Your task to perform on an android device: turn on priority inbox in the gmail app Image 0: 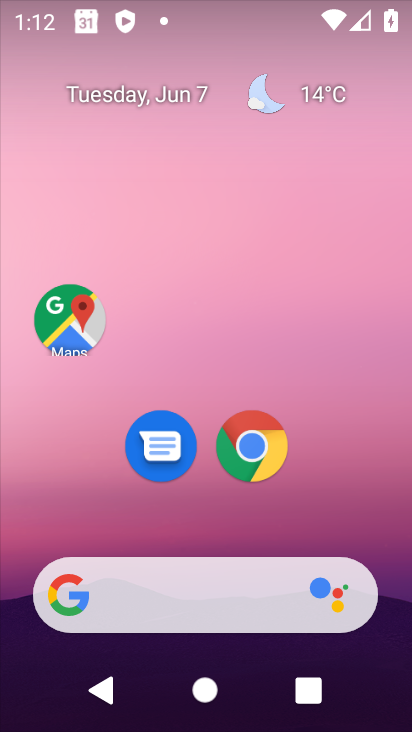
Step 0: drag from (261, 665) to (273, 45)
Your task to perform on an android device: turn on priority inbox in the gmail app Image 1: 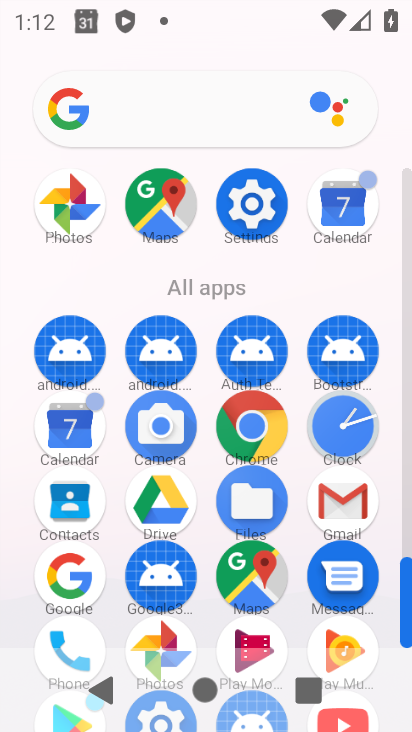
Step 1: click (358, 504)
Your task to perform on an android device: turn on priority inbox in the gmail app Image 2: 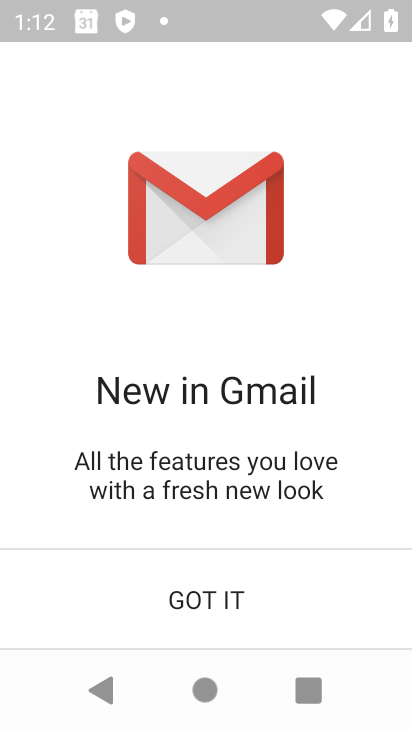
Step 2: click (219, 583)
Your task to perform on an android device: turn on priority inbox in the gmail app Image 3: 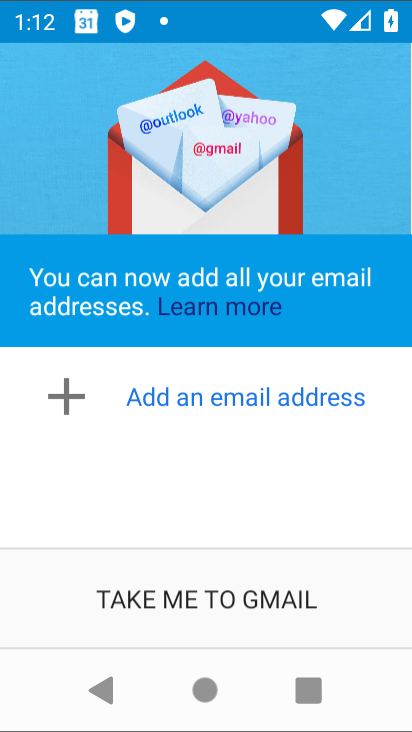
Step 3: click (219, 583)
Your task to perform on an android device: turn on priority inbox in the gmail app Image 4: 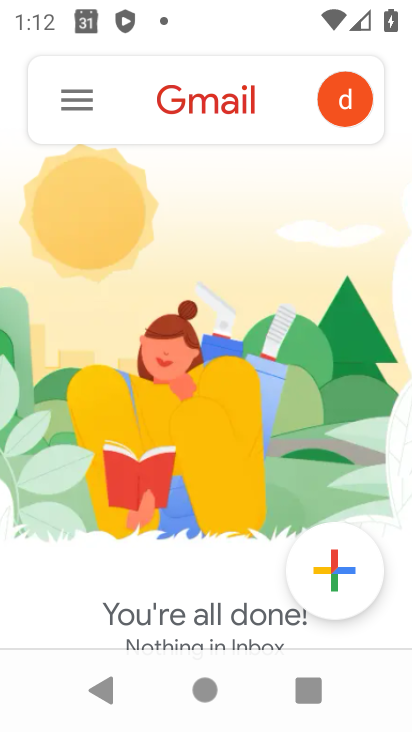
Step 4: click (81, 86)
Your task to perform on an android device: turn on priority inbox in the gmail app Image 5: 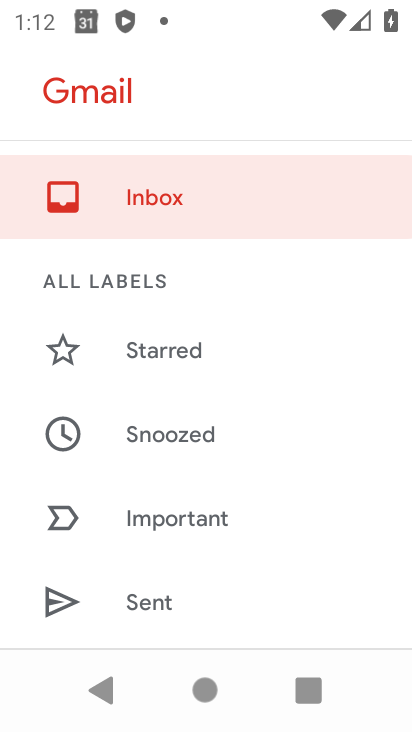
Step 5: drag from (183, 572) to (308, 2)
Your task to perform on an android device: turn on priority inbox in the gmail app Image 6: 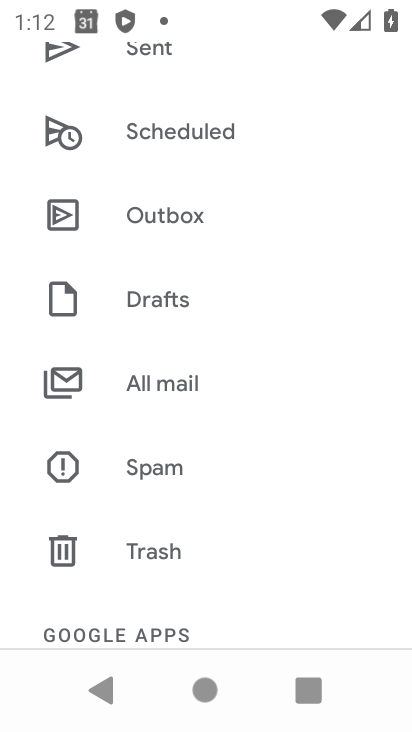
Step 6: drag from (212, 592) to (320, 5)
Your task to perform on an android device: turn on priority inbox in the gmail app Image 7: 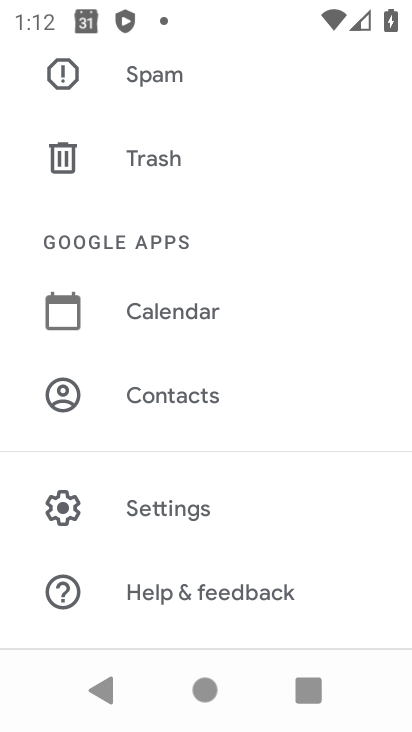
Step 7: click (201, 521)
Your task to perform on an android device: turn on priority inbox in the gmail app Image 8: 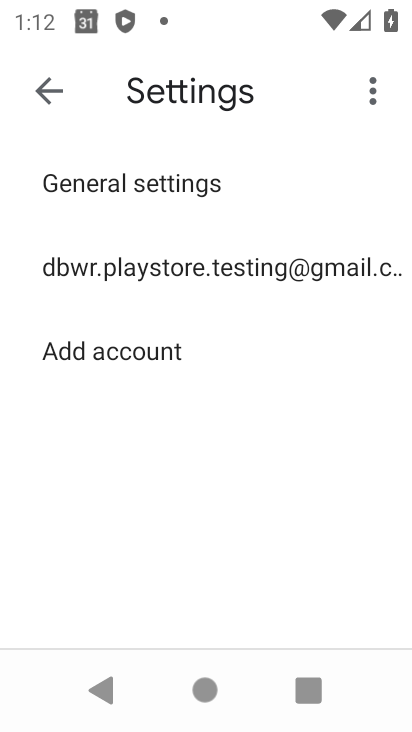
Step 8: click (113, 277)
Your task to perform on an android device: turn on priority inbox in the gmail app Image 9: 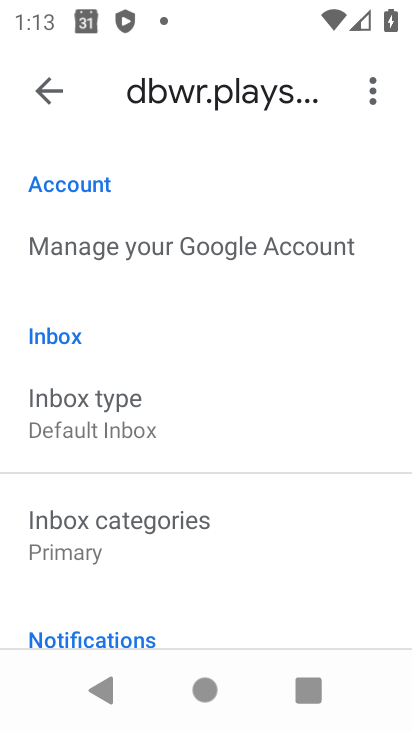
Step 9: click (153, 424)
Your task to perform on an android device: turn on priority inbox in the gmail app Image 10: 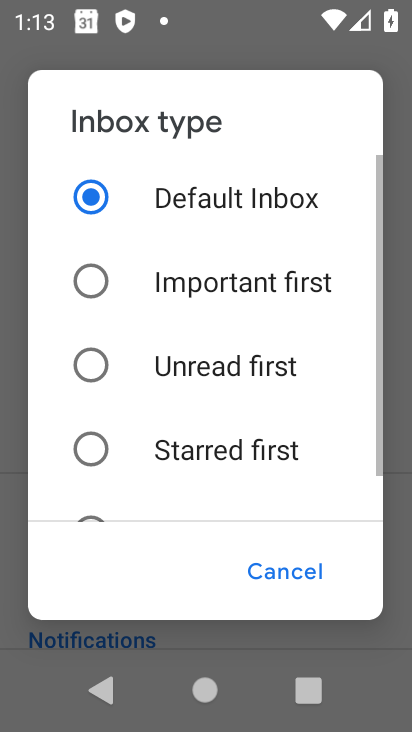
Step 10: drag from (186, 452) to (221, 102)
Your task to perform on an android device: turn on priority inbox in the gmail app Image 11: 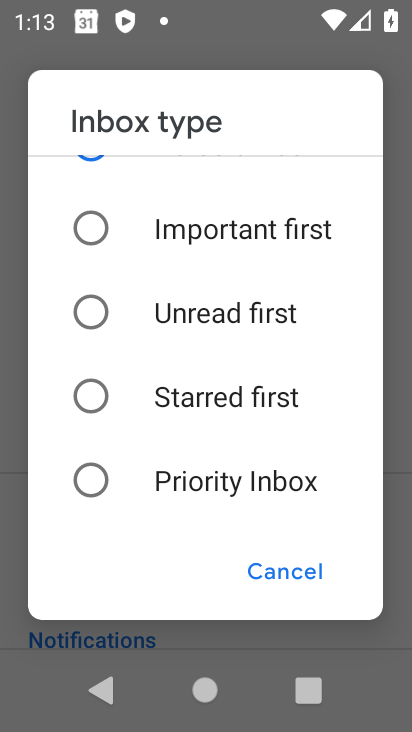
Step 11: click (185, 497)
Your task to perform on an android device: turn on priority inbox in the gmail app Image 12: 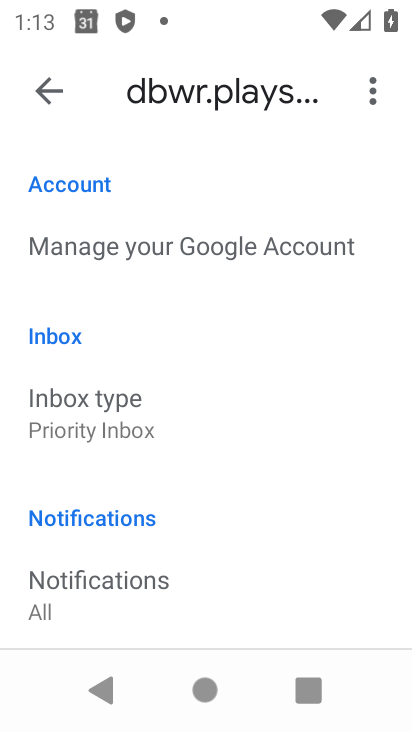
Step 12: task complete